Your task to perform on an android device: open device folders in google photos Image 0: 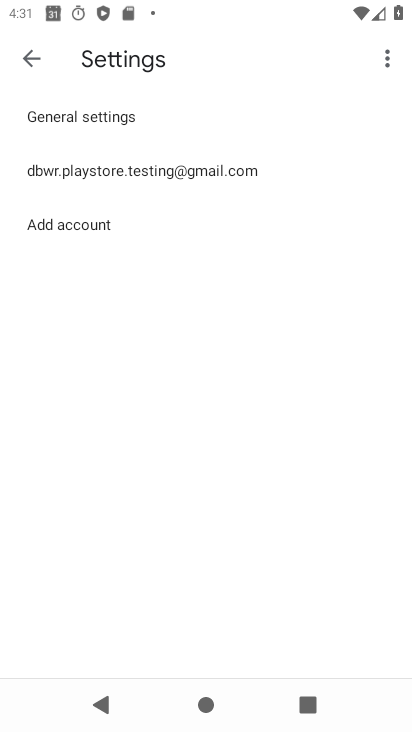
Step 0: press home button
Your task to perform on an android device: open device folders in google photos Image 1: 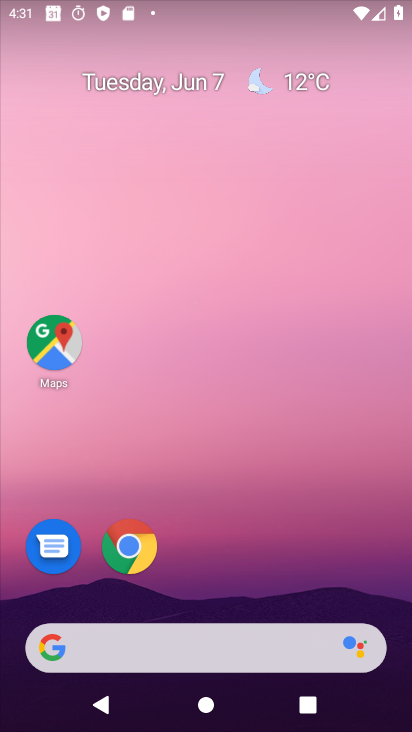
Step 1: drag from (162, 576) to (224, 33)
Your task to perform on an android device: open device folders in google photos Image 2: 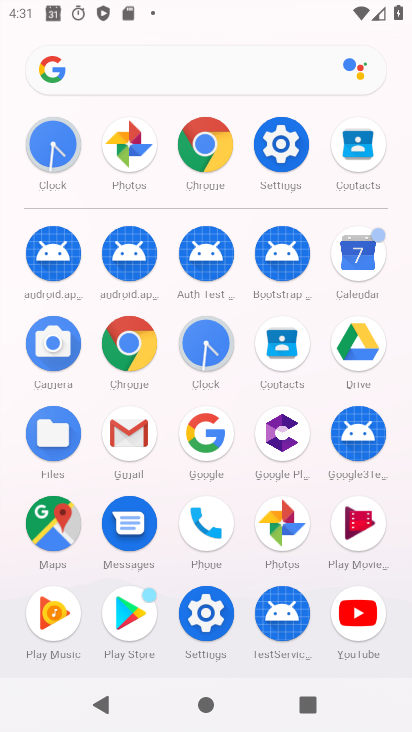
Step 2: click (134, 125)
Your task to perform on an android device: open device folders in google photos Image 3: 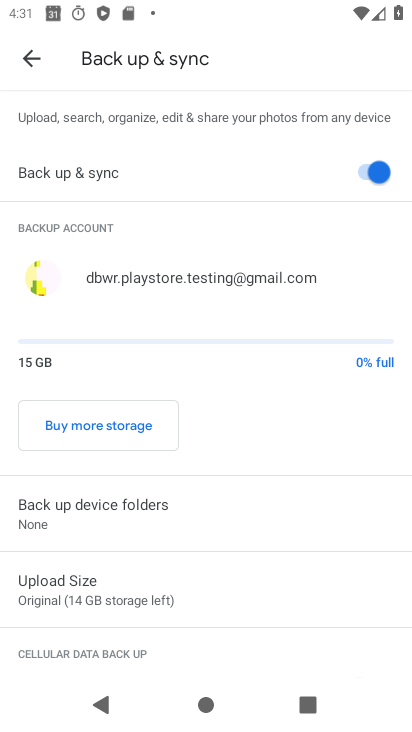
Step 3: click (48, 68)
Your task to perform on an android device: open device folders in google photos Image 4: 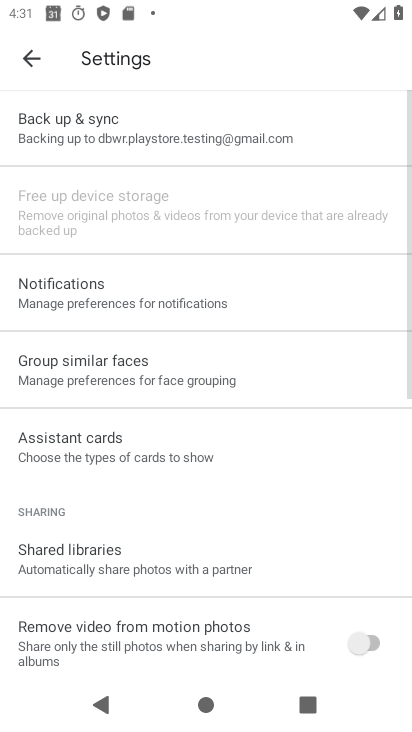
Step 4: click (48, 68)
Your task to perform on an android device: open device folders in google photos Image 5: 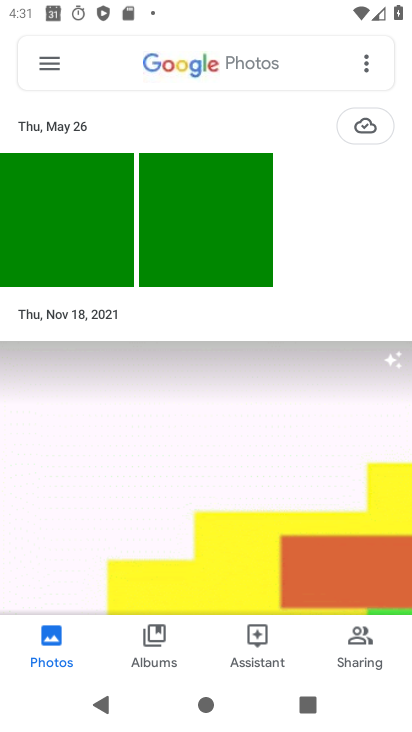
Step 5: click (45, 64)
Your task to perform on an android device: open device folders in google photos Image 6: 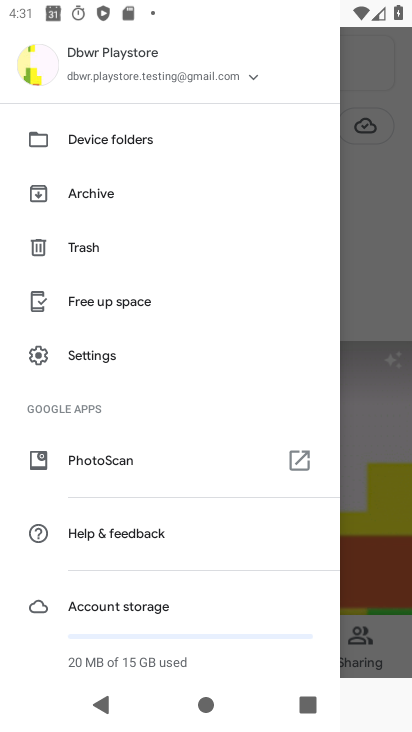
Step 6: click (151, 147)
Your task to perform on an android device: open device folders in google photos Image 7: 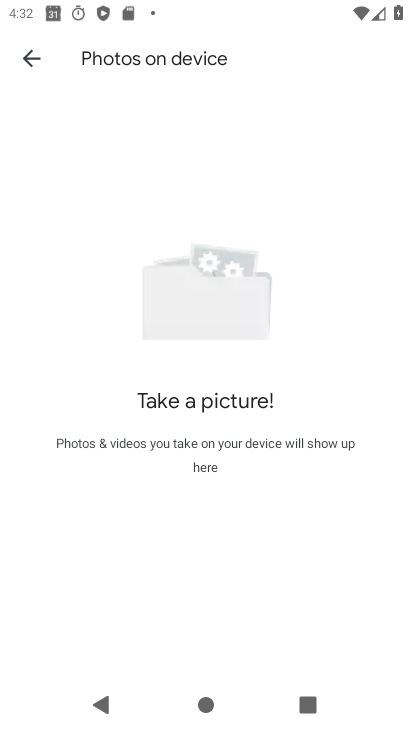
Step 7: task complete